Your task to perform on an android device: Play the last video I watched on Youtube Image 0: 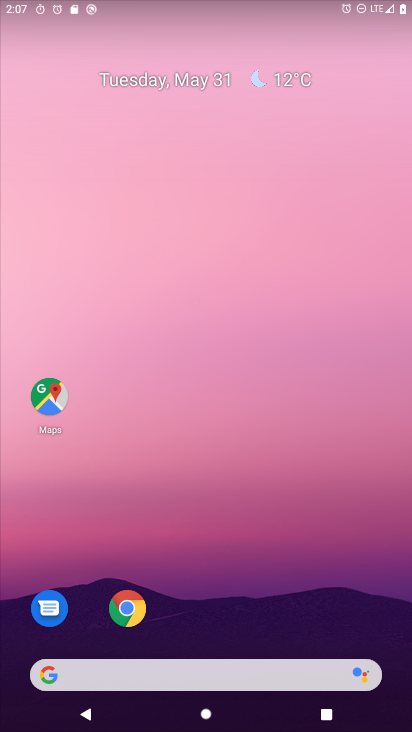
Step 0: drag from (288, 639) to (263, 13)
Your task to perform on an android device: Play the last video I watched on Youtube Image 1: 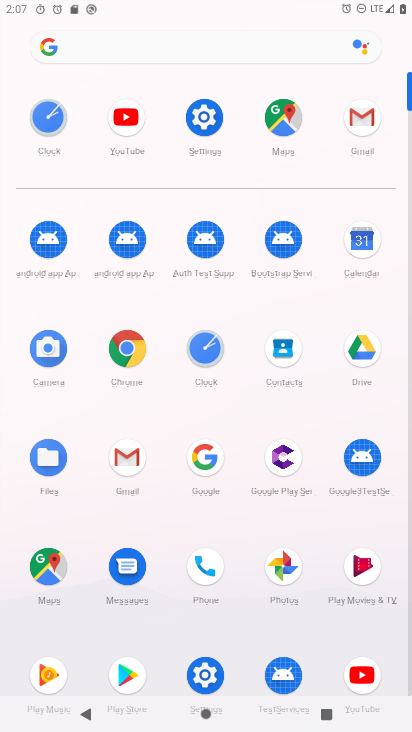
Step 1: click (131, 121)
Your task to perform on an android device: Play the last video I watched on Youtube Image 2: 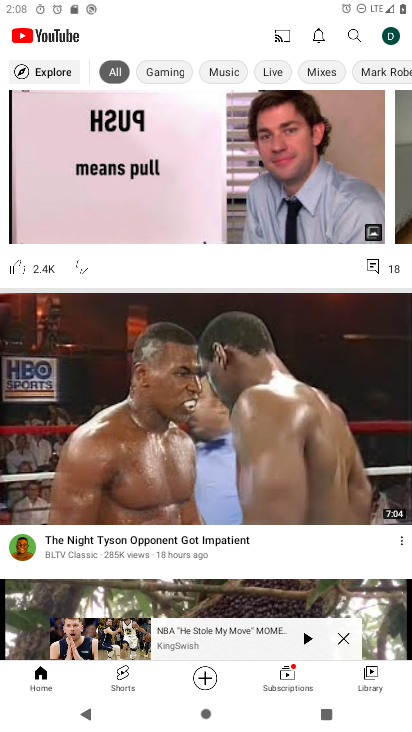
Step 2: click (373, 683)
Your task to perform on an android device: Play the last video I watched on Youtube Image 3: 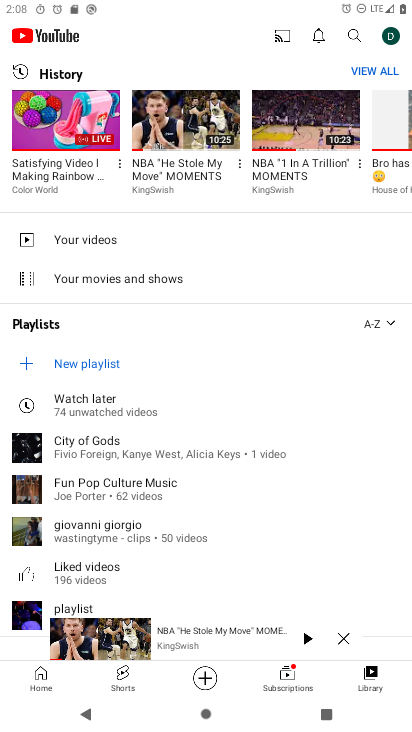
Step 3: click (52, 127)
Your task to perform on an android device: Play the last video I watched on Youtube Image 4: 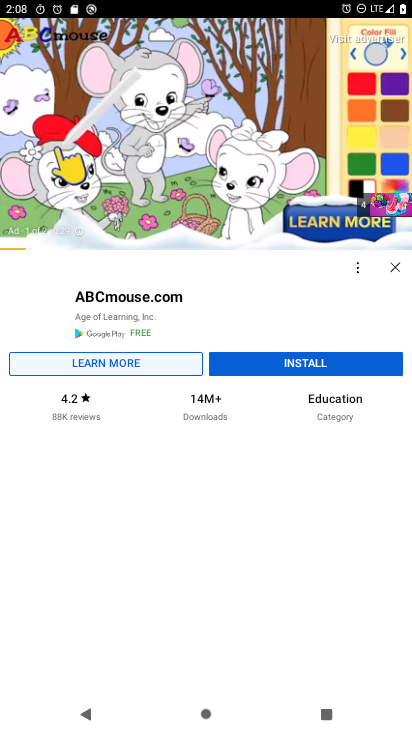
Step 4: click (227, 149)
Your task to perform on an android device: Play the last video I watched on Youtube Image 5: 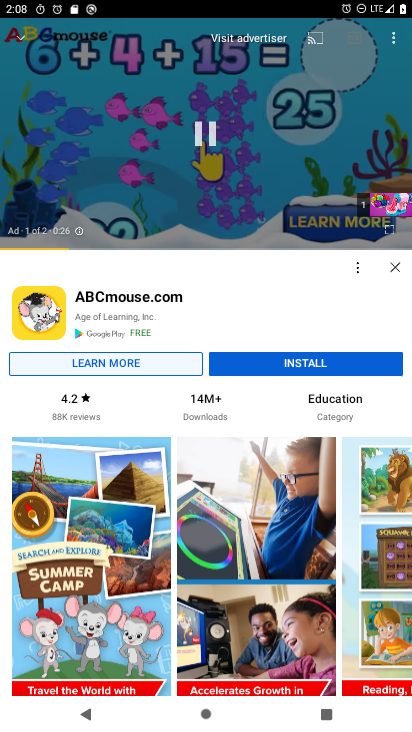
Step 5: click (203, 129)
Your task to perform on an android device: Play the last video I watched on Youtube Image 6: 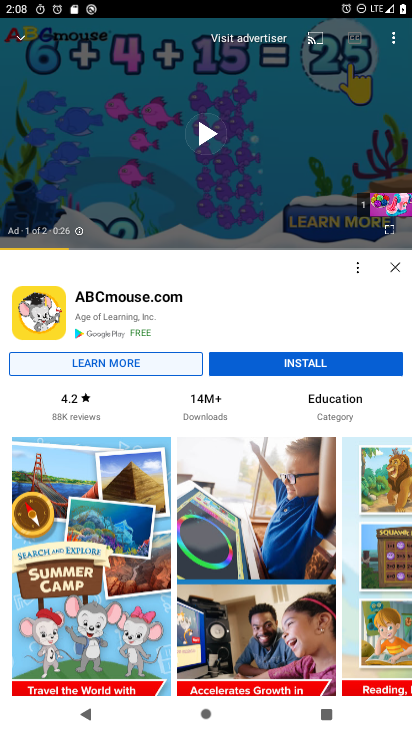
Step 6: click (203, 129)
Your task to perform on an android device: Play the last video I watched on Youtube Image 7: 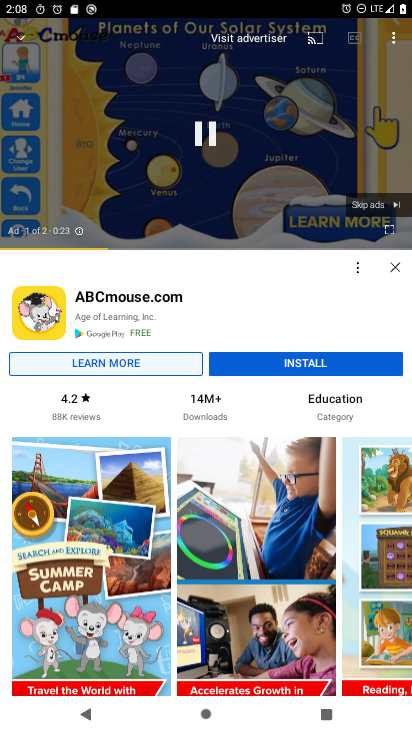
Step 7: click (379, 197)
Your task to perform on an android device: Play the last video I watched on Youtube Image 8: 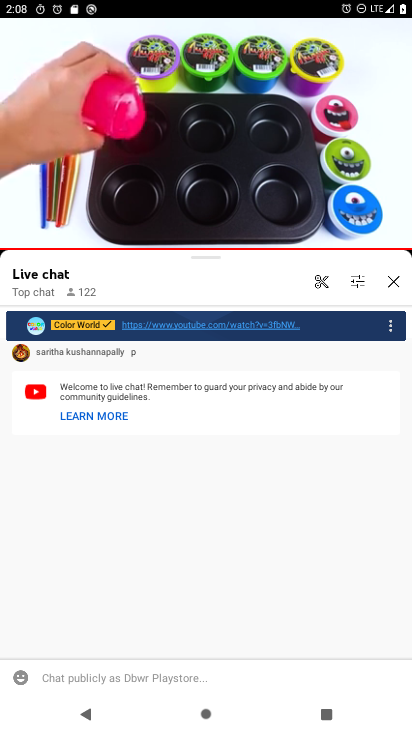
Step 8: click (220, 173)
Your task to perform on an android device: Play the last video I watched on Youtube Image 9: 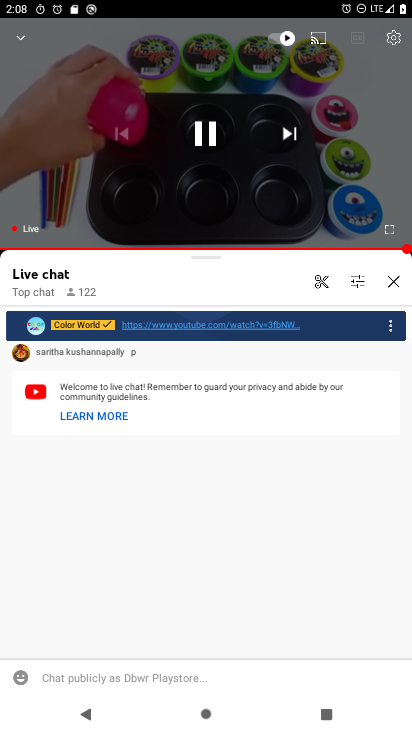
Step 9: click (199, 133)
Your task to perform on an android device: Play the last video I watched on Youtube Image 10: 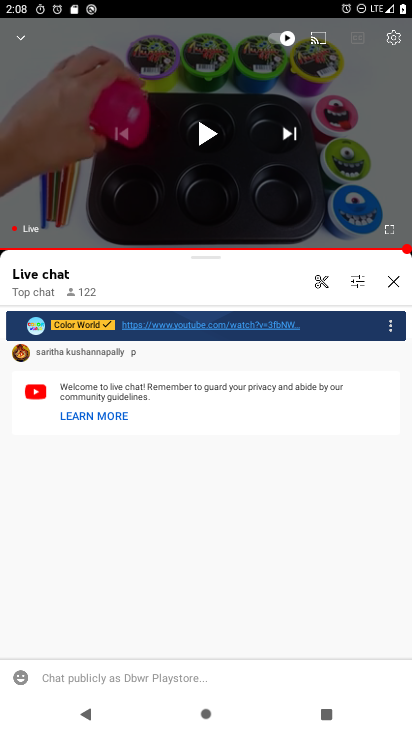
Step 10: task complete